Your task to perform on an android device: open app "LiveIn - Share Your Moment" (install if not already installed) and go to login screen Image 0: 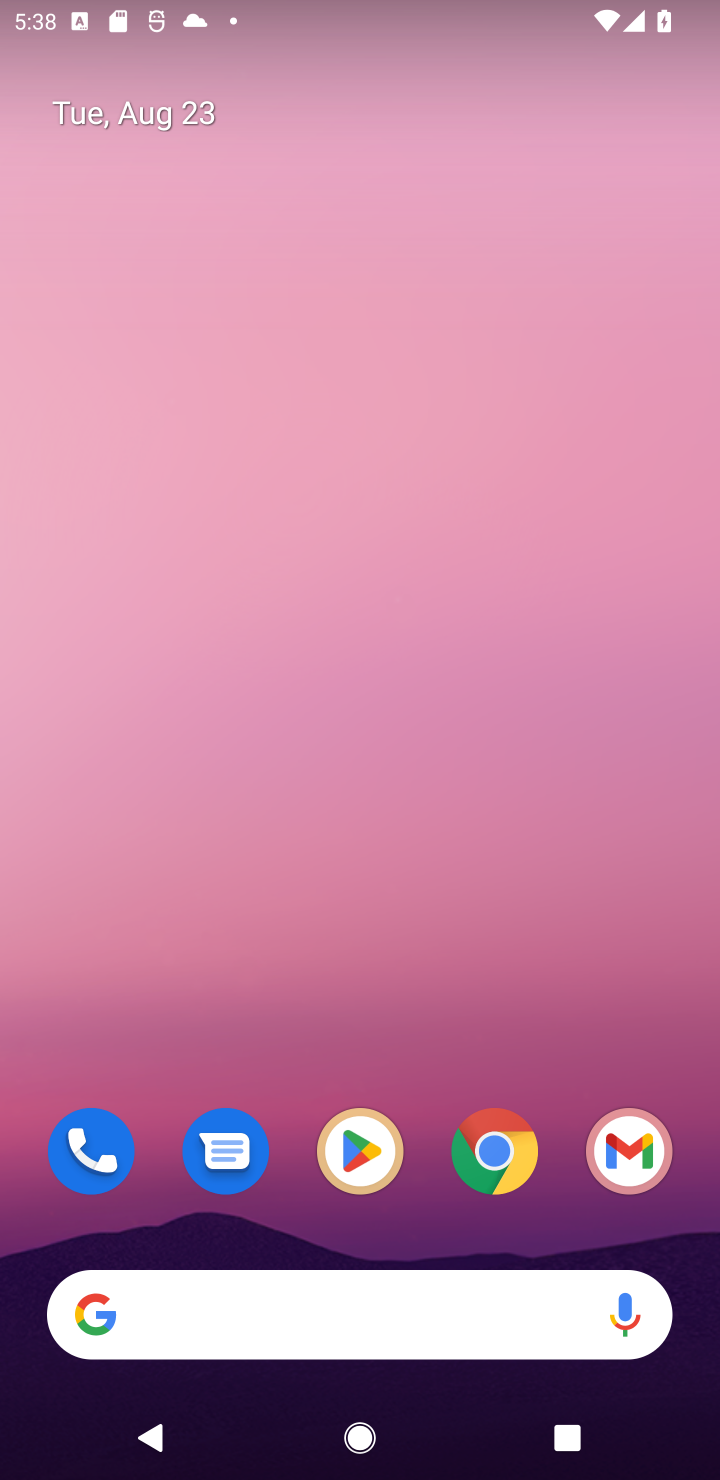
Step 0: click (366, 1174)
Your task to perform on an android device: open app "LiveIn - Share Your Moment" (install if not already installed) and go to login screen Image 1: 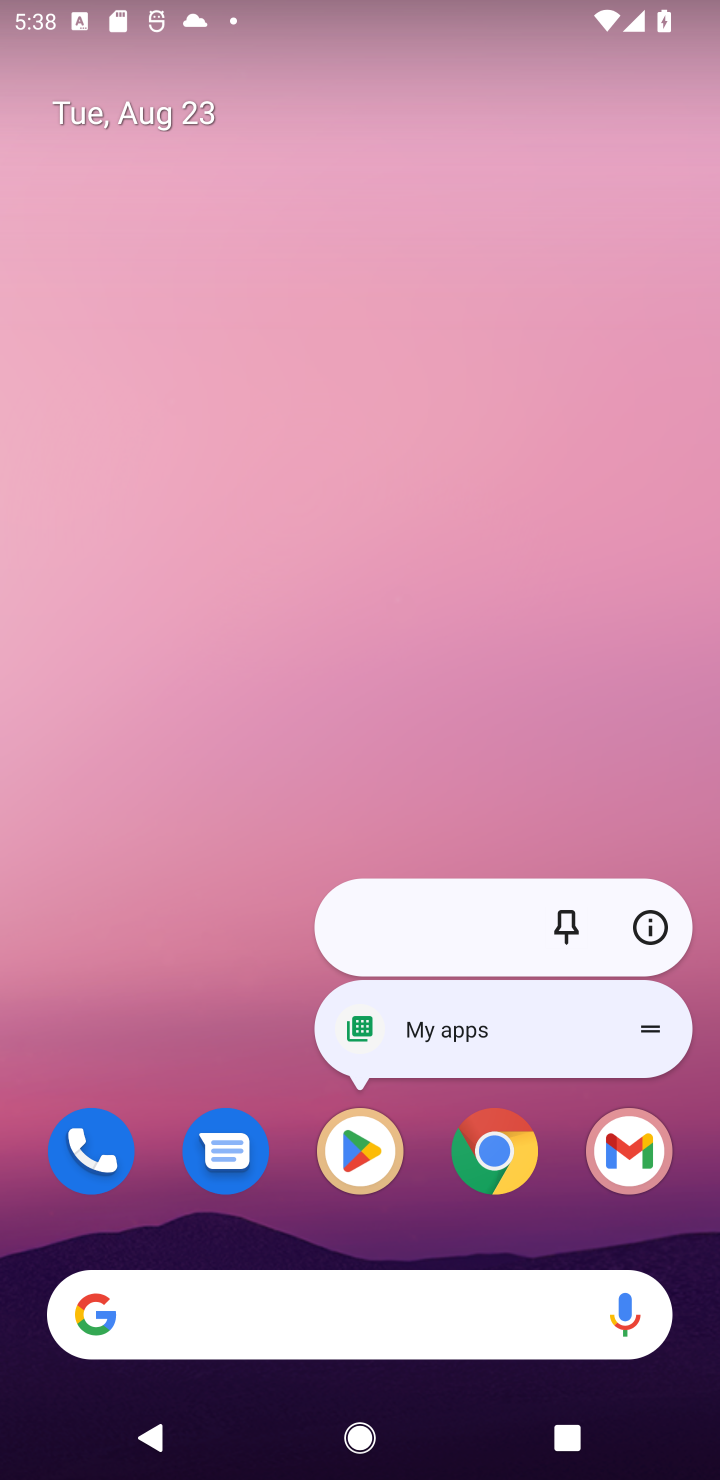
Step 1: click (345, 1158)
Your task to perform on an android device: open app "LiveIn - Share Your Moment" (install if not already installed) and go to login screen Image 2: 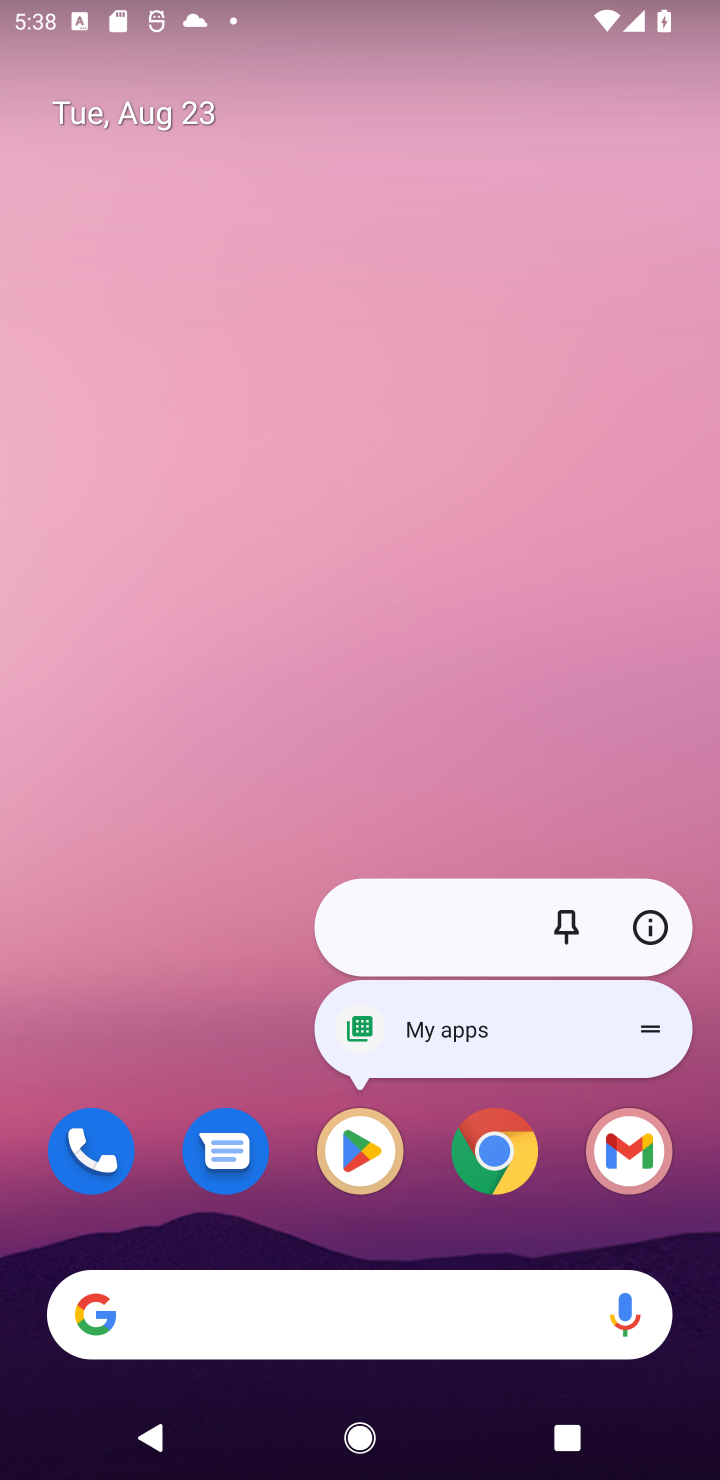
Step 2: click (355, 1155)
Your task to perform on an android device: open app "LiveIn - Share Your Moment" (install if not already installed) and go to login screen Image 3: 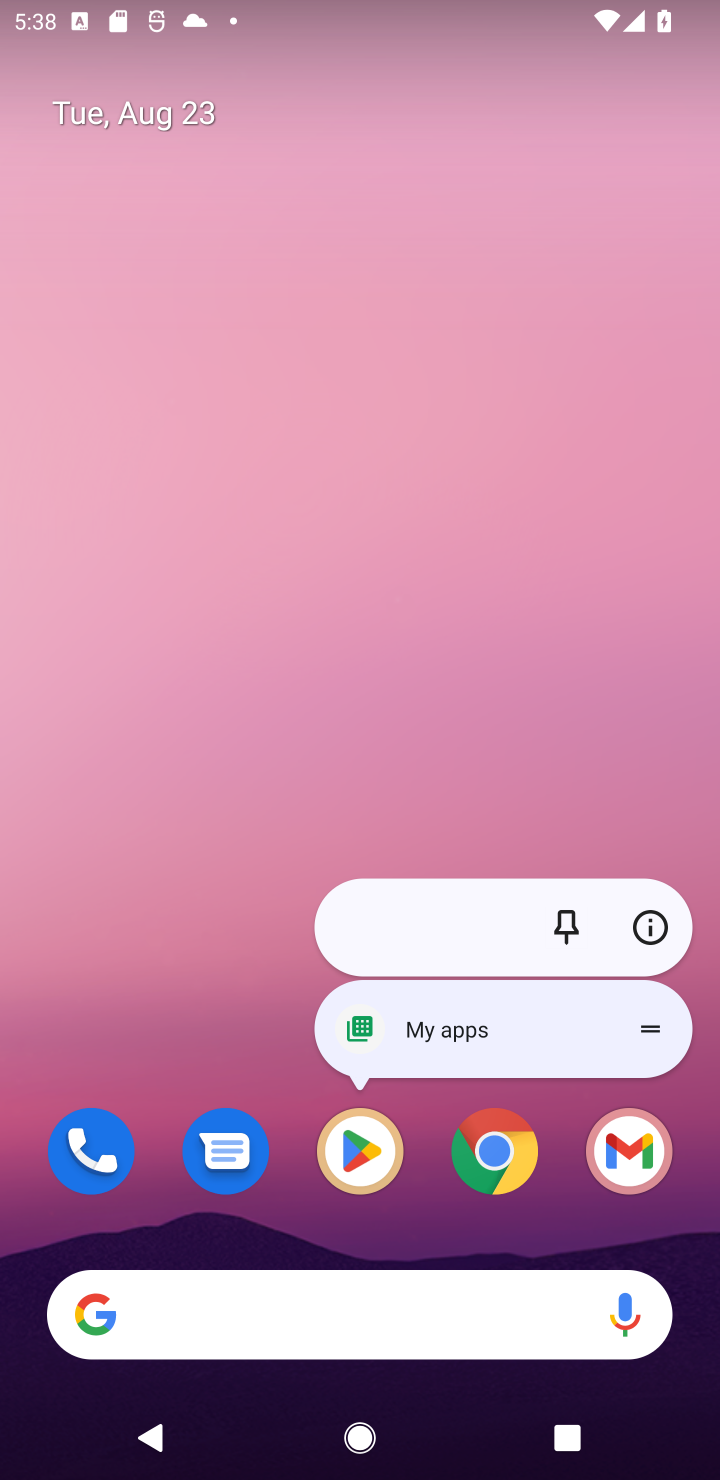
Step 3: click (355, 1160)
Your task to perform on an android device: open app "LiveIn - Share Your Moment" (install if not already installed) and go to login screen Image 4: 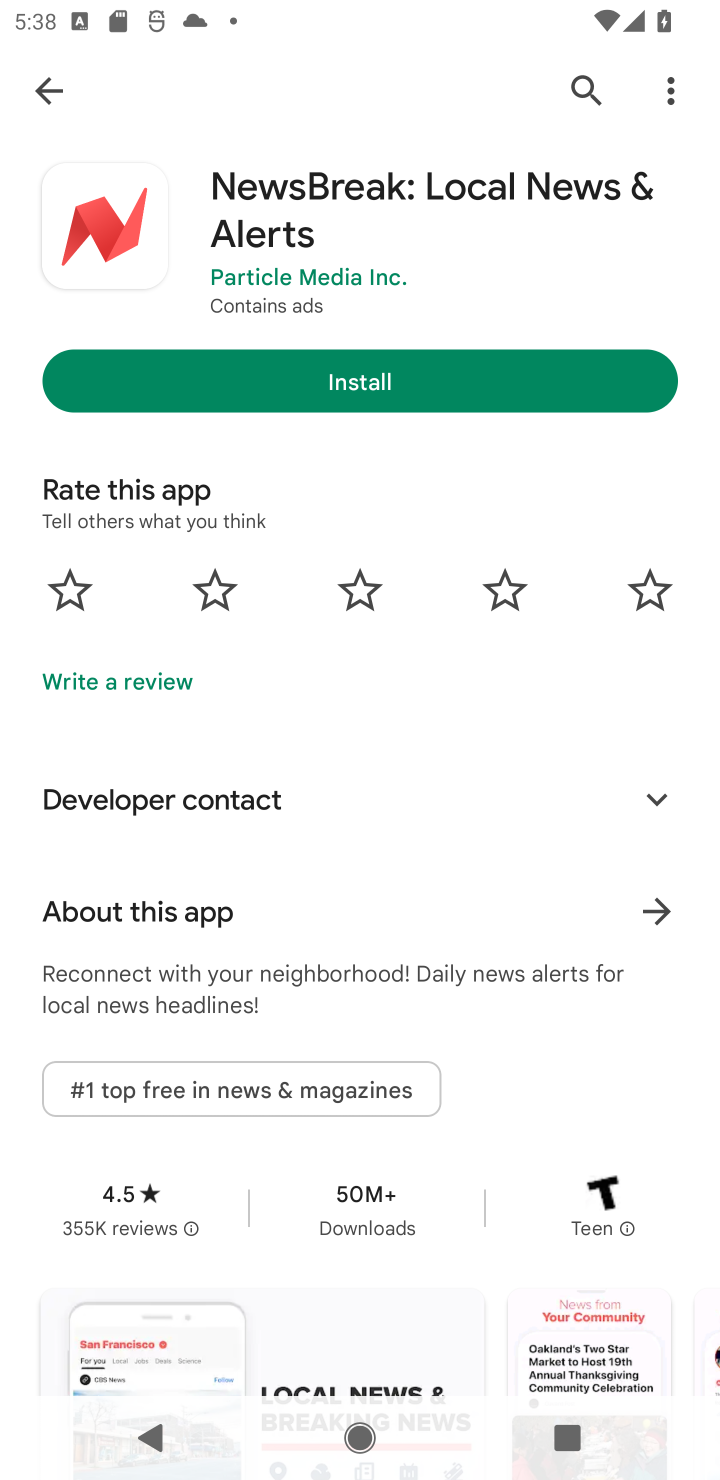
Step 4: click (590, 77)
Your task to perform on an android device: open app "LiveIn - Share Your Moment" (install if not already installed) and go to login screen Image 5: 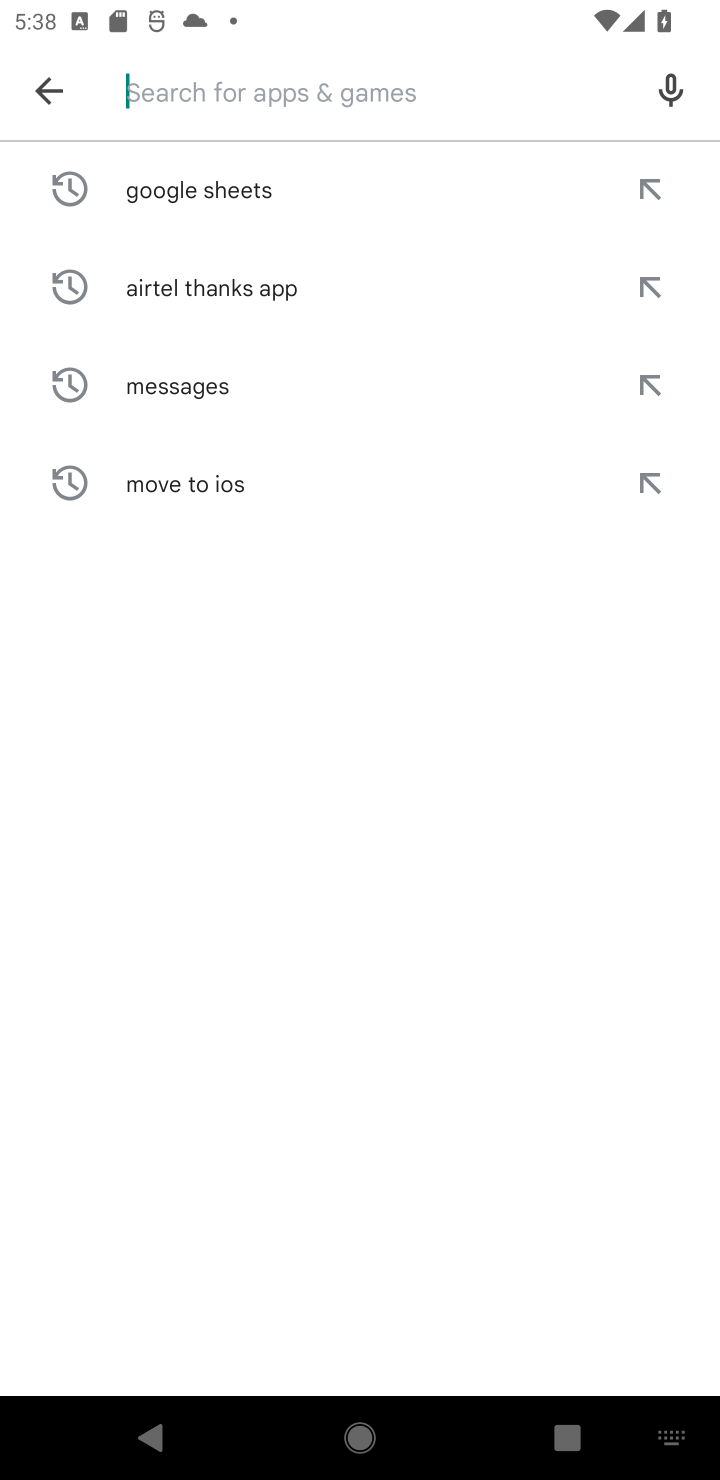
Step 5: type "LiveIn - Share Your Moment"
Your task to perform on an android device: open app "LiveIn - Share Your Moment" (install if not already installed) and go to login screen Image 6: 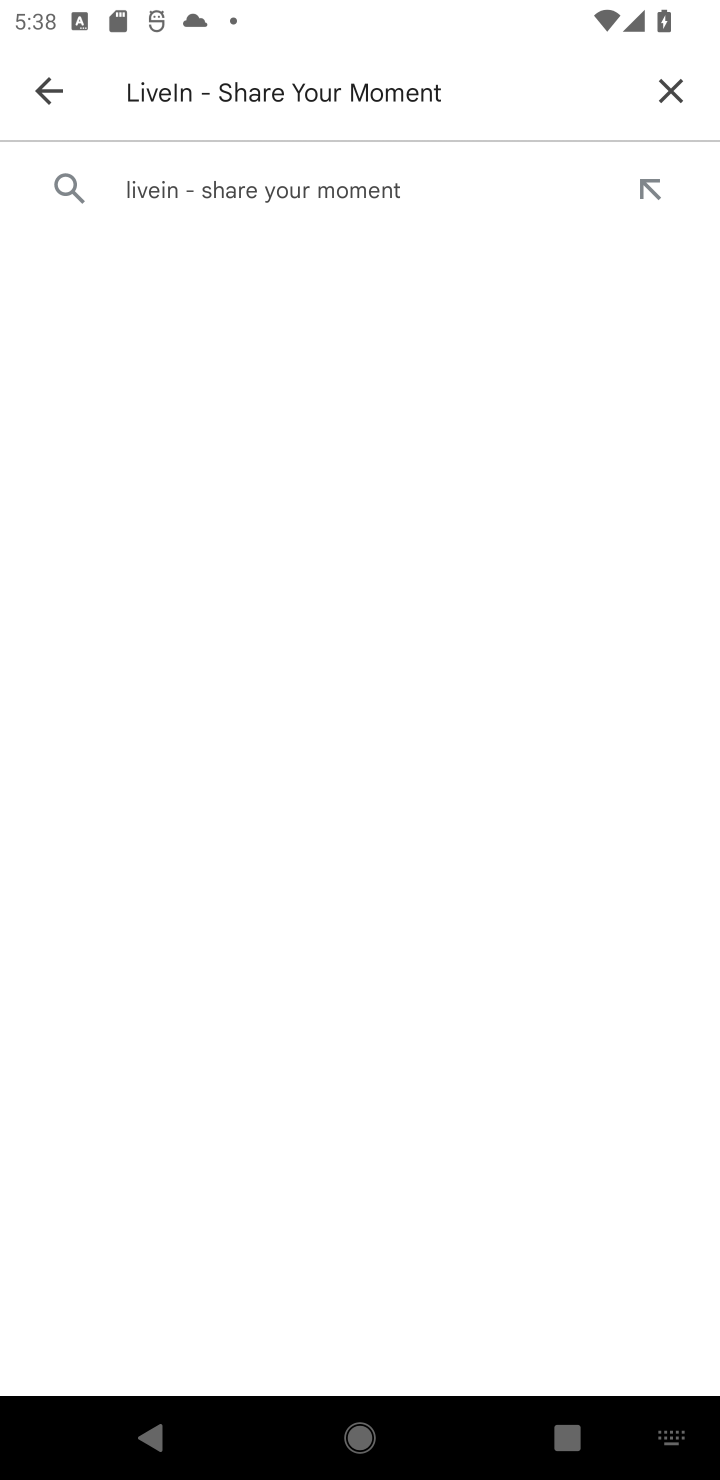
Step 6: click (294, 203)
Your task to perform on an android device: open app "LiveIn - Share Your Moment" (install if not already installed) and go to login screen Image 7: 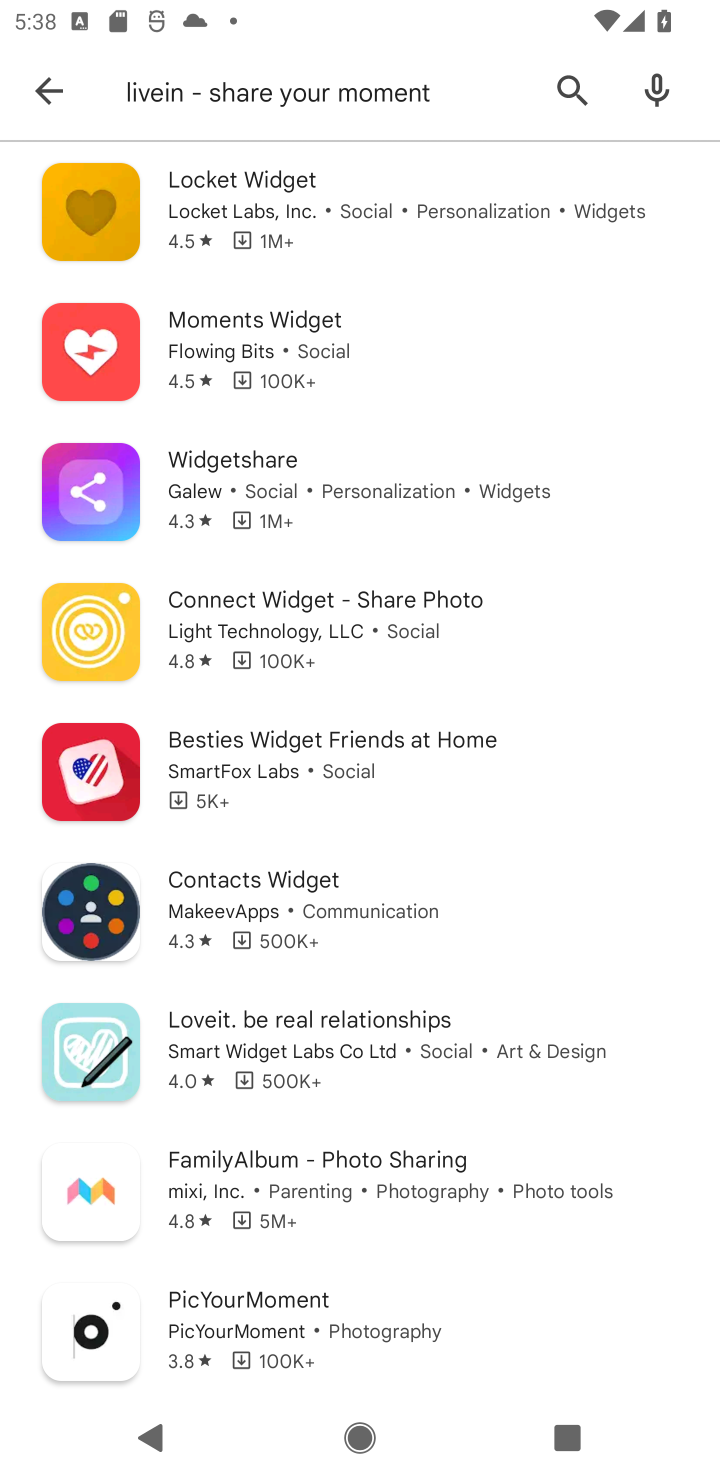
Step 7: task complete